Your task to perform on an android device: install app "HBO Max: Stream TV & Movies" Image 0: 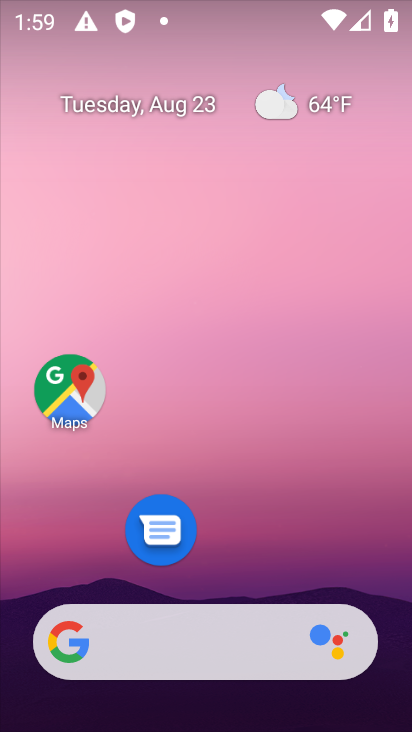
Step 0: drag from (248, 432) to (284, 0)
Your task to perform on an android device: install app "HBO Max: Stream TV & Movies" Image 1: 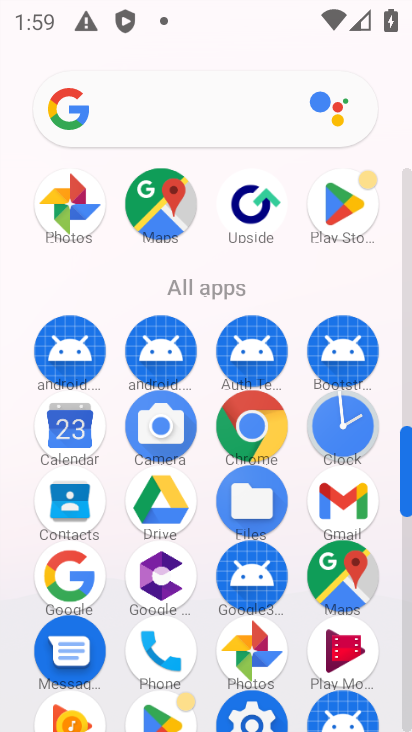
Step 1: click (354, 201)
Your task to perform on an android device: install app "HBO Max: Stream TV & Movies" Image 2: 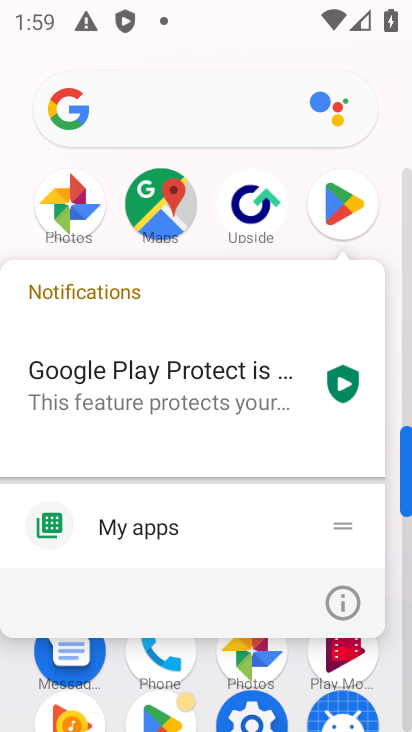
Step 2: click (354, 200)
Your task to perform on an android device: install app "HBO Max: Stream TV & Movies" Image 3: 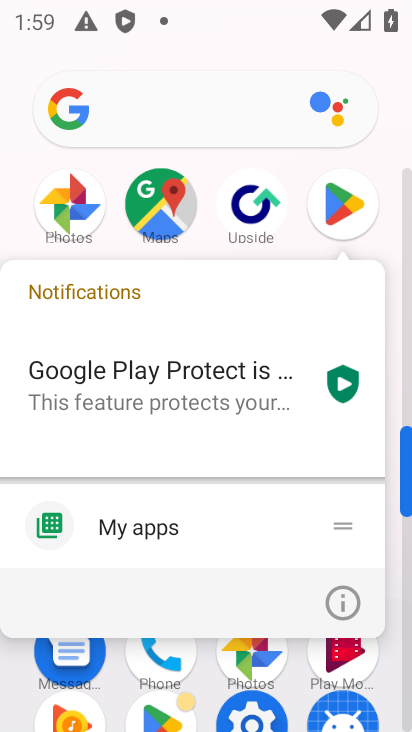
Step 3: click (354, 200)
Your task to perform on an android device: install app "HBO Max: Stream TV & Movies" Image 4: 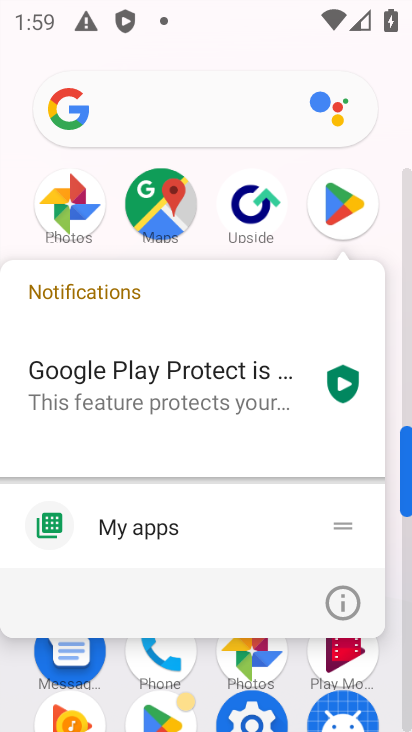
Step 4: click (354, 199)
Your task to perform on an android device: install app "HBO Max: Stream TV & Movies" Image 5: 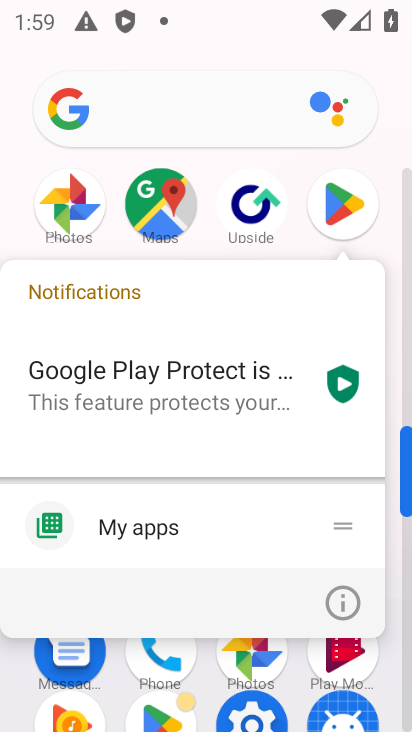
Step 5: click (354, 199)
Your task to perform on an android device: install app "HBO Max: Stream TV & Movies" Image 6: 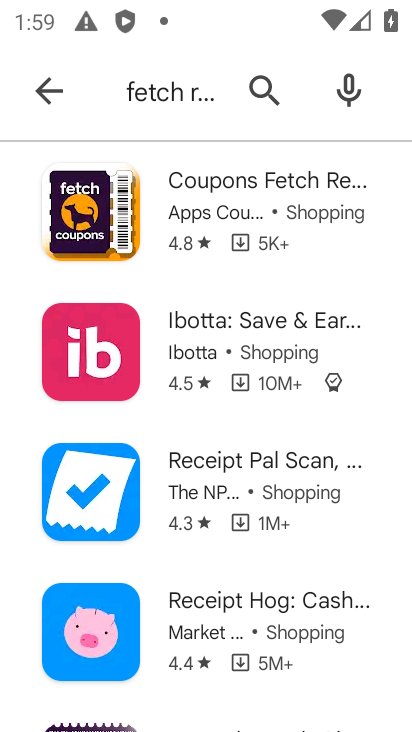
Step 6: press back button
Your task to perform on an android device: install app "HBO Max: Stream TV & Movies" Image 7: 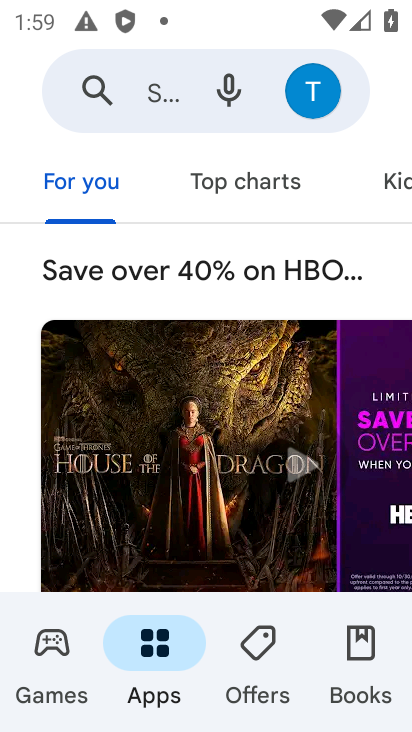
Step 7: click (159, 89)
Your task to perform on an android device: install app "HBO Max: Stream TV & Movies" Image 8: 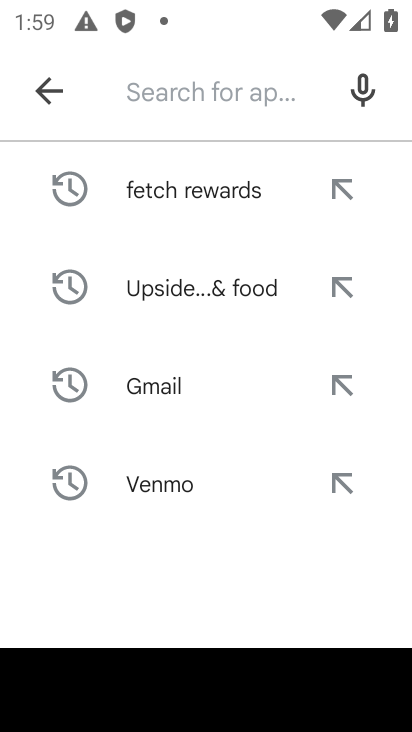
Step 8: type "HBO Max: Stream TV & Movies"
Your task to perform on an android device: install app "HBO Max: Stream TV & Movies" Image 9: 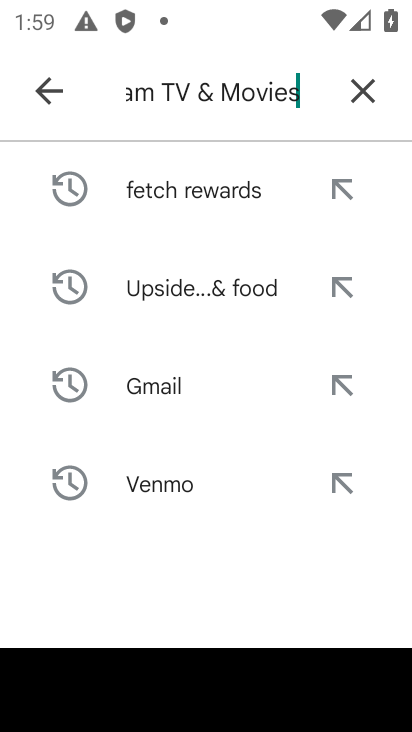
Step 9: press enter
Your task to perform on an android device: install app "HBO Max: Stream TV & Movies" Image 10: 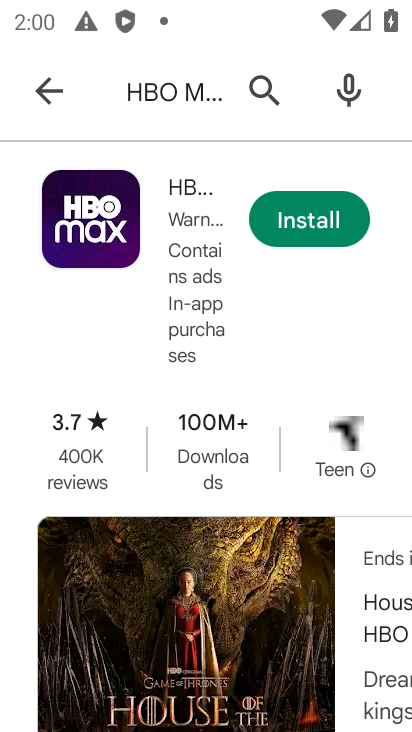
Step 10: click (329, 225)
Your task to perform on an android device: install app "HBO Max: Stream TV & Movies" Image 11: 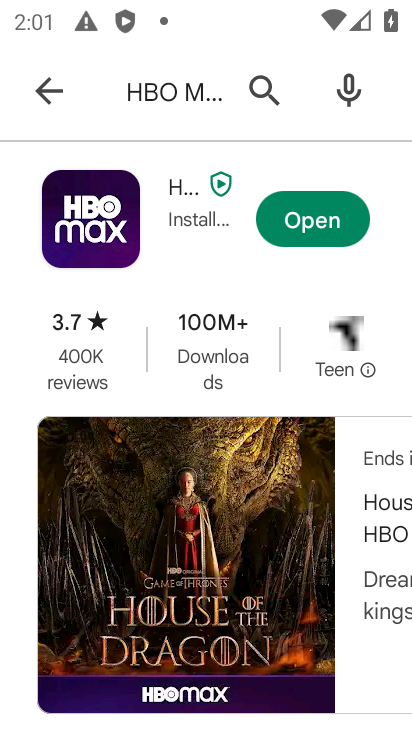
Step 11: task complete